Your task to perform on an android device: change alarm snooze length Image 0: 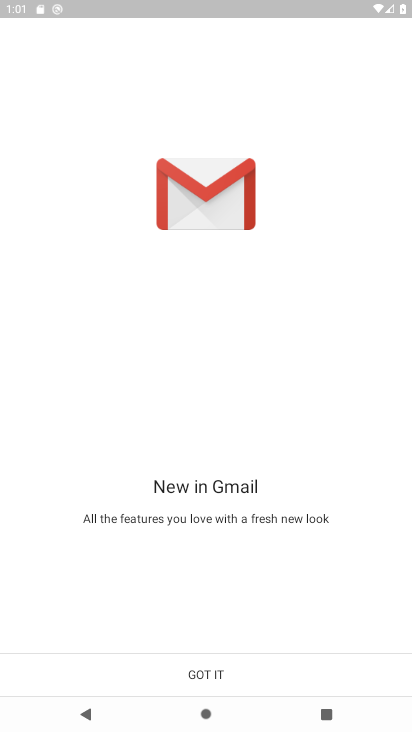
Step 0: press home button
Your task to perform on an android device: change alarm snooze length Image 1: 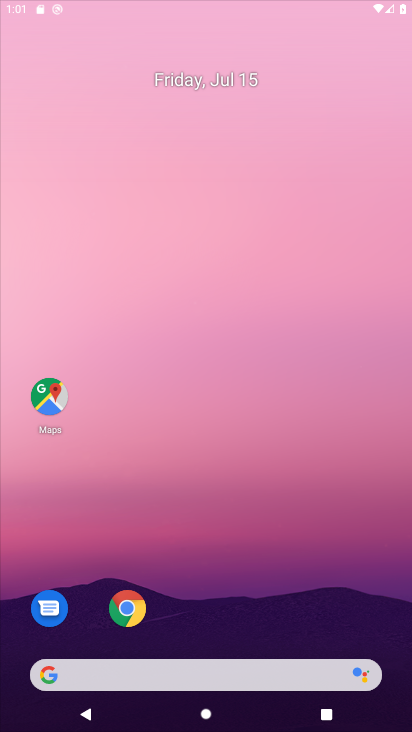
Step 1: drag from (242, 395) to (268, 50)
Your task to perform on an android device: change alarm snooze length Image 2: 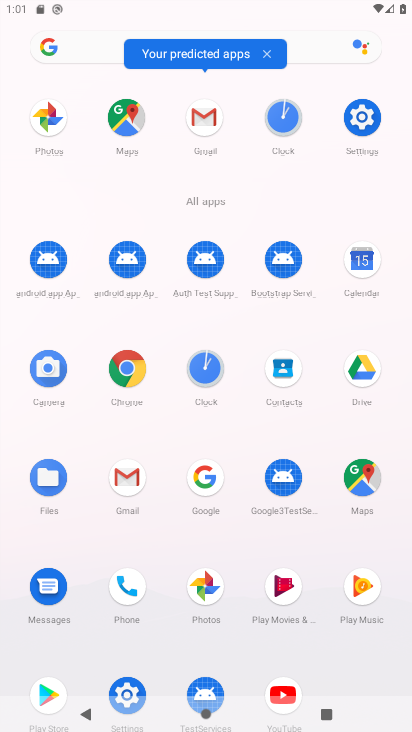
Step 2: click (205, 367)
Your task to perform on an android device: change alarm snooze length Image 3: 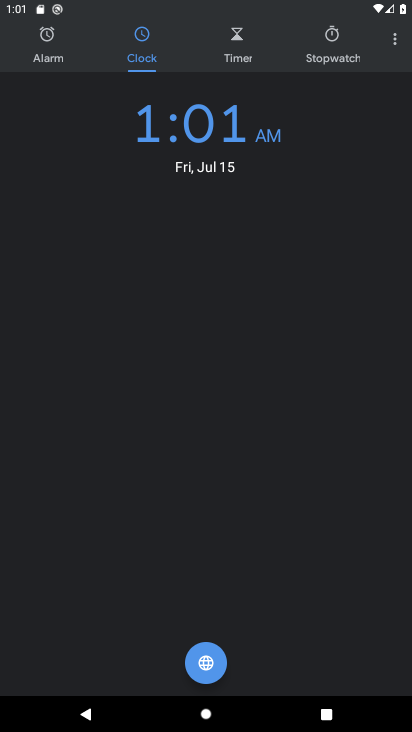
Step 3: click (394, 39)
Your task to perform on an android device: change alarm snooze length Image 4: 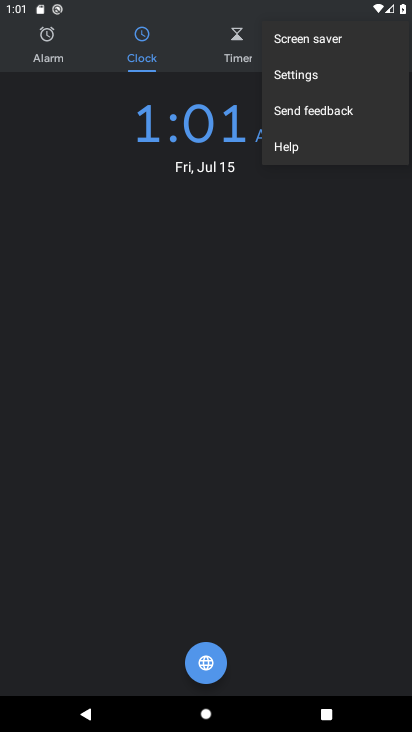
Step 4: click (362, 69)
Your task to perform on an android device: change alarm snooze length Image 5: 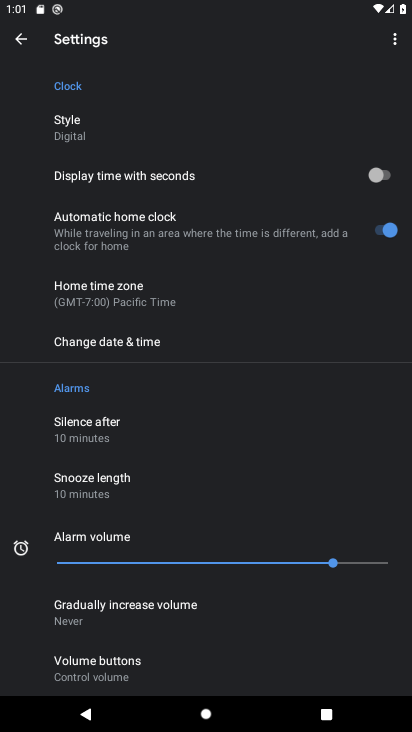
Step 5: click (161, 500)
Your task to perform on an android device: change alarm snooze length Image 6: 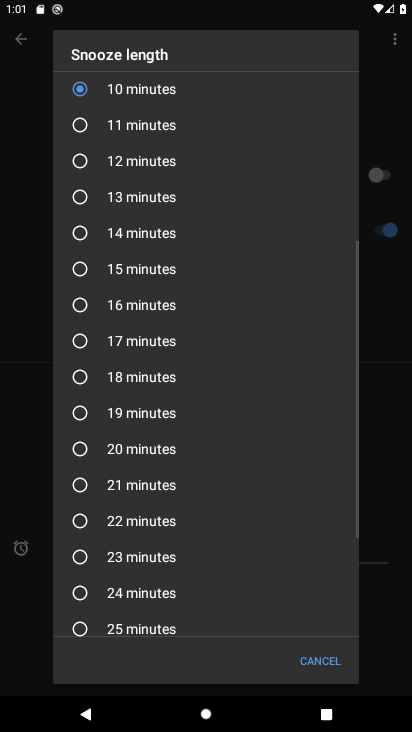
Step 6: click (150, 456)
Your task to perform on an android device: change alarm snooze length Image 7: 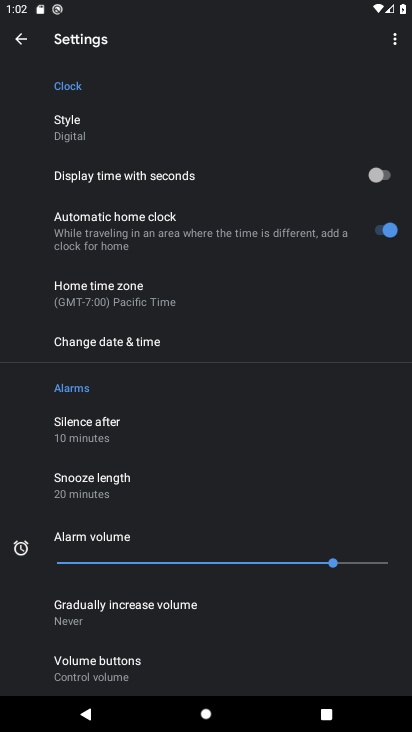
Step 7: task complete